Your task to perform on an android device: turn on translation in the chrome app Image 0: 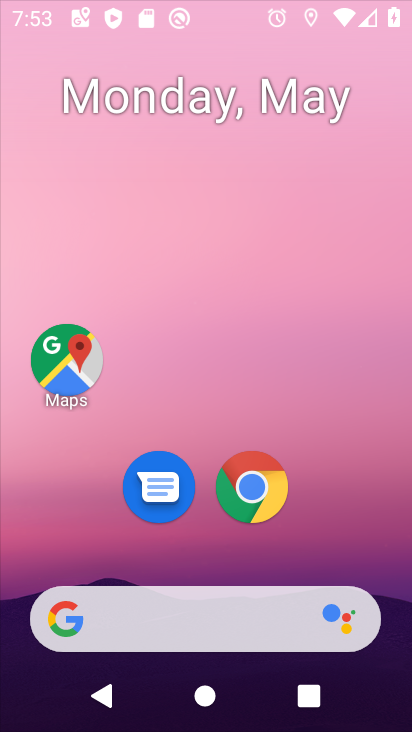
Step 0: press home button
Your task to perform on an android device: turn on translation in the chrome app Image 1: 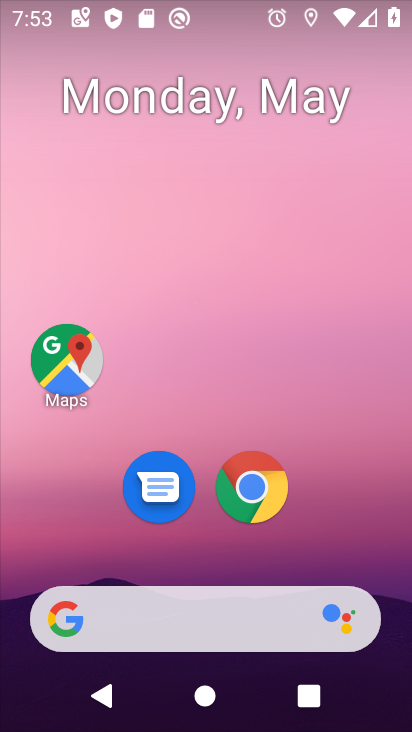
Step 1: click (259, 485)
Your task to perform on an android device: turn on translation in the chrome app Image 2: 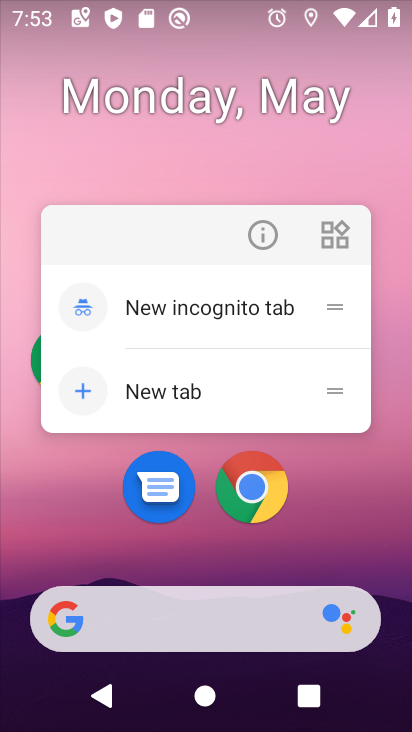
Step 2: click (242, 506)
Your task to perform on an android device: turn on translation in the chrome app Image 3: 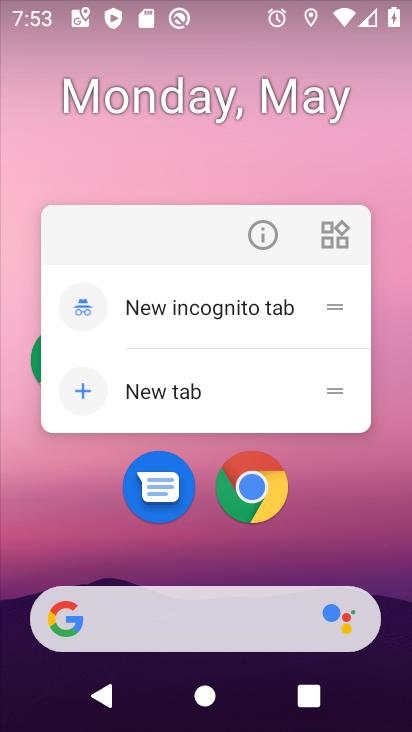
Step 3: click (348, 485)
Your task to perform on an android device: turn on translation in the chrome app Image 4: 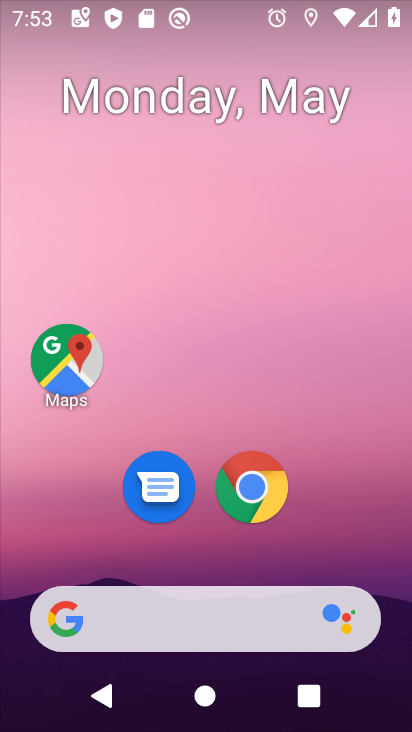
Step 4: drag from (361, 556) to (335, 84)
Your task to perform on an android device: turn on translation in the chrome app Image 5: 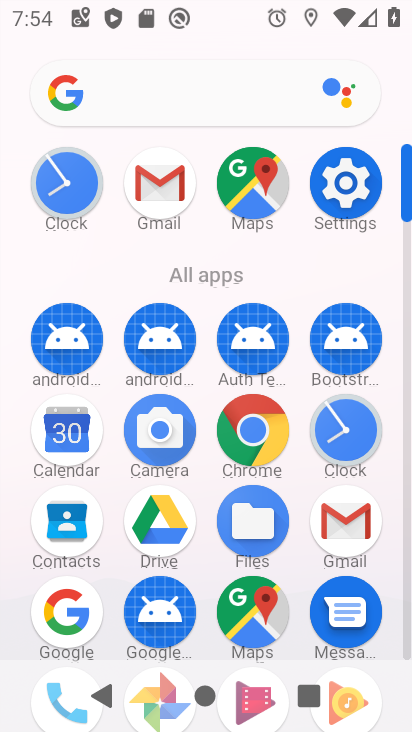
Step 5: click (269, 428)
Your task to perform on an android device: turn on translation in the chrome app Image 6: 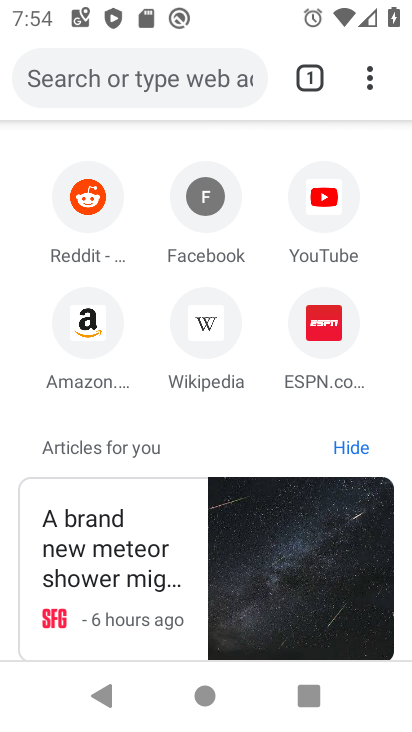
Step 6: drag from (379, 80) to (165, 536)
Your task to perform on an android device: turn on translation in the chrome app Image 7: 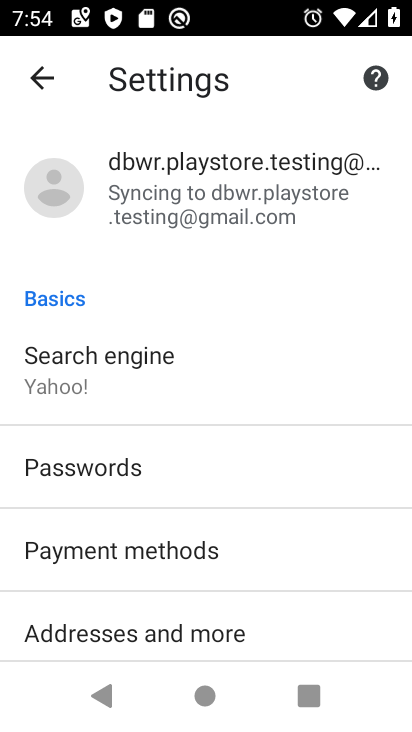
Step 7: drag from (306, 619) to (322, 203)
Your task to perform on an android device: turn on translation in the chrome app Image 8: 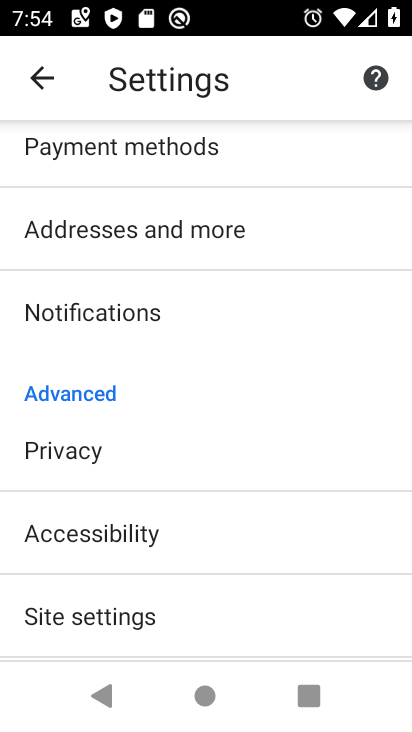
Step 8: drag from (225, 445) to (215, 222)
Your task to perform on an android device: turn on translation in the chrome app Image 9: 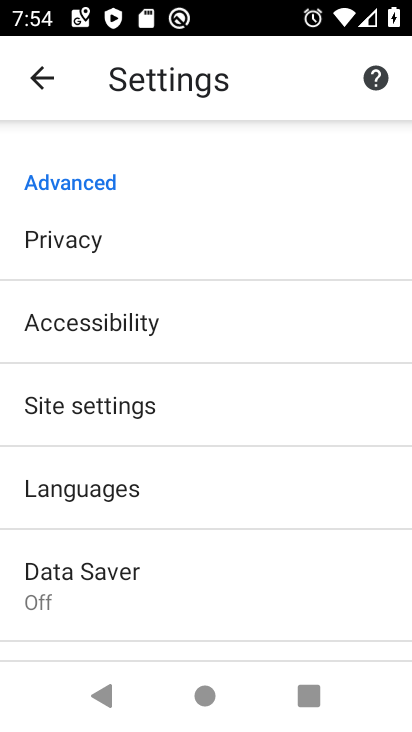
Step 9: click (88, 488)
Your task to perform on an android device: turn on translation in the chrome app Image 10: 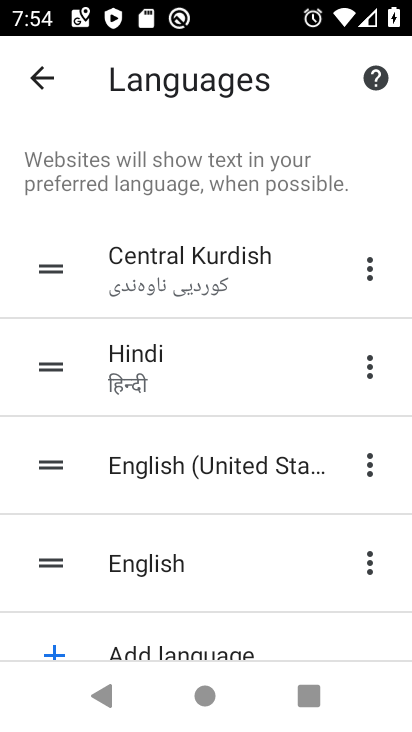
Step 10: task complete